Your task to perform on an android device: toggle notification dots Image 0: 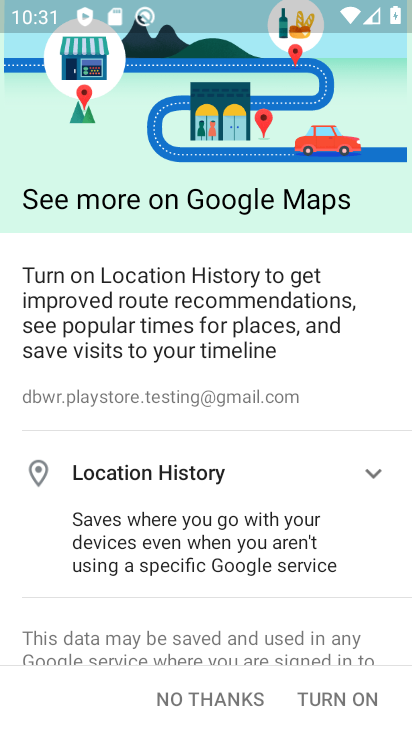
Step 0: press home button
Your task to perform on an android device: toggle notification dots Image 1: 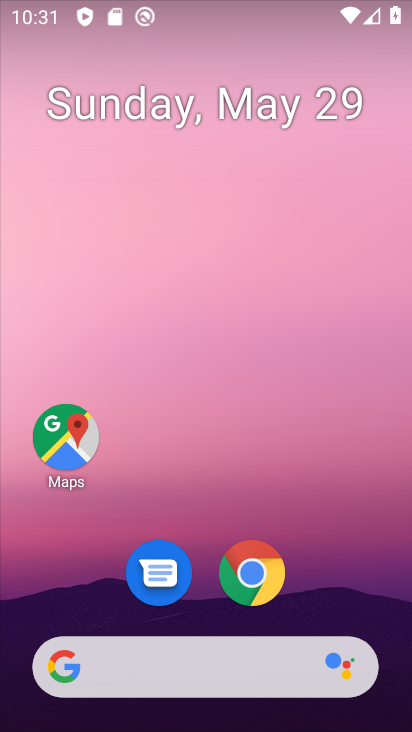
Step 1: drag from (319, 498) to (307, 193)
Your task to perform on an android device: toggle notification dots Image 2: 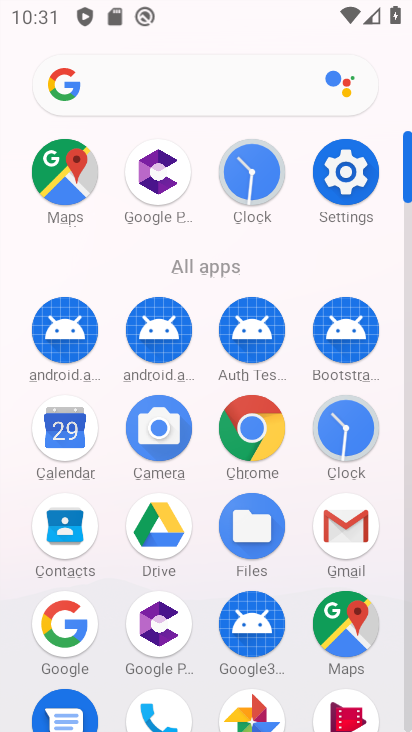
Step 2: click (363, 174)
Your task to perform on an android device: toggle notification dots Image 3: 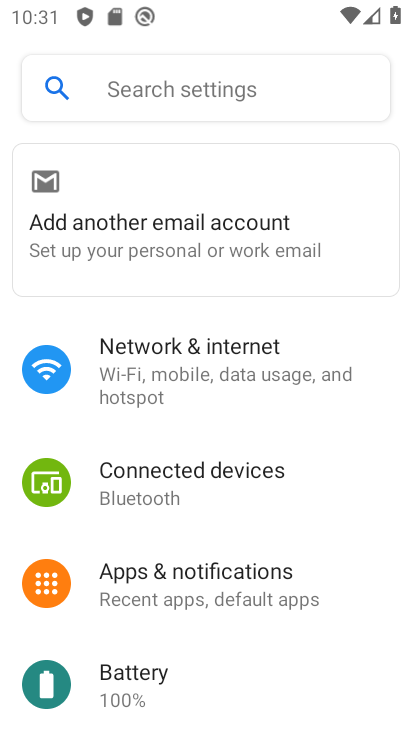
Step 3: click (251, 563)
Your task to perform on an android device: toggle notification dots Image 4: 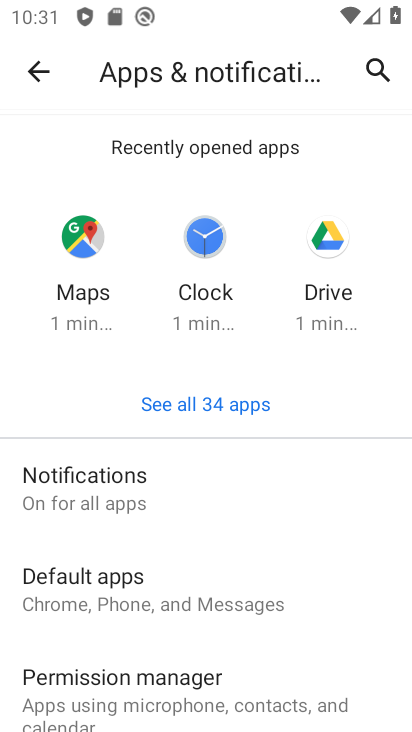
Step 4: drag from (321, 632) to (255, 256)
Your task to perform on an android device: toggle notification dots Image 5: 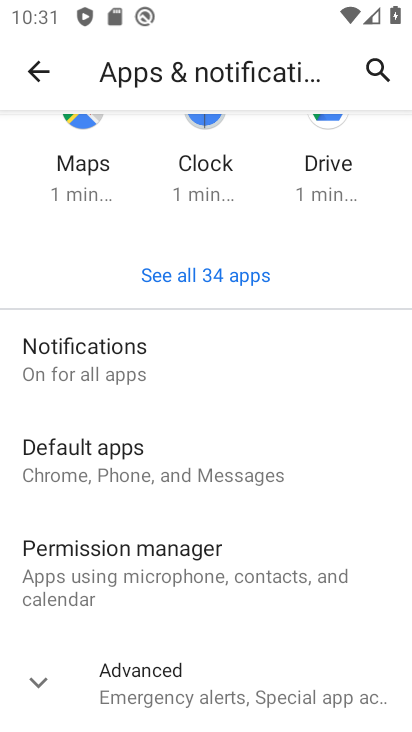
Step 5: click (40, 675)
Your task to perform on an android device: toggle notification dots Image 6: 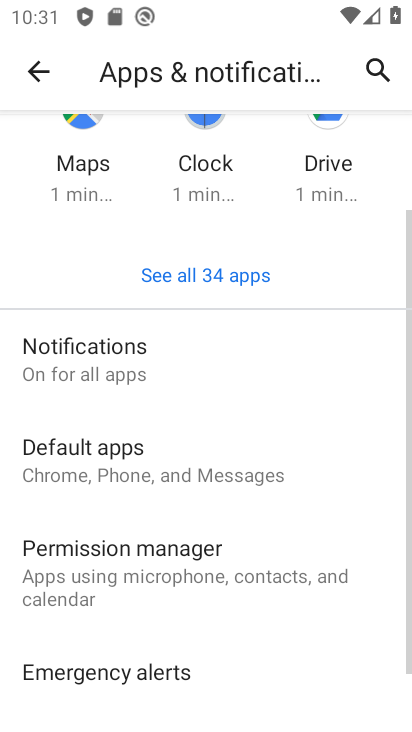
Step 6: drag from (300, 654) to (303, 165)
Your task to perform on an android device: toggle notification dots Image 7: 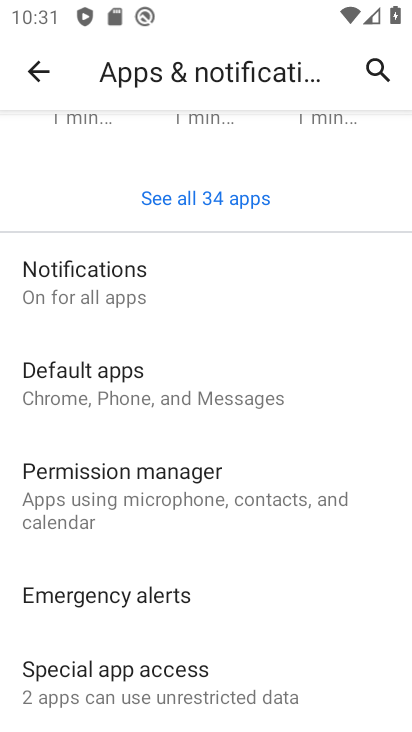
Step 7: drag from (272, 617) to (292, 152)
Your task to perform on an android device: toggle notification dots Image 8: 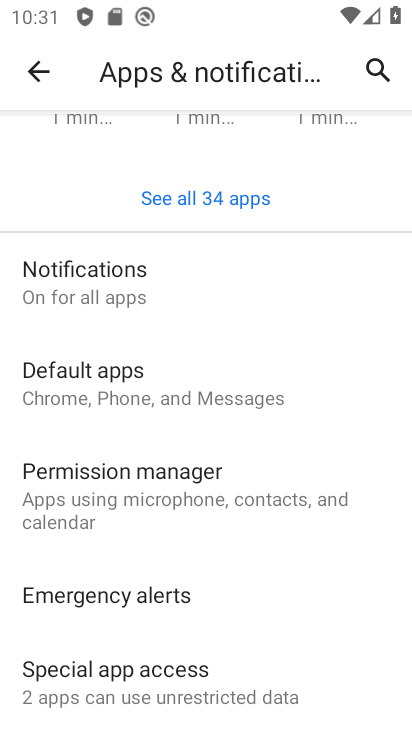
Step 8: drag from (276, 618) to (269, 162)
Your task to perform on an android device: toggle notification dots Image 9: 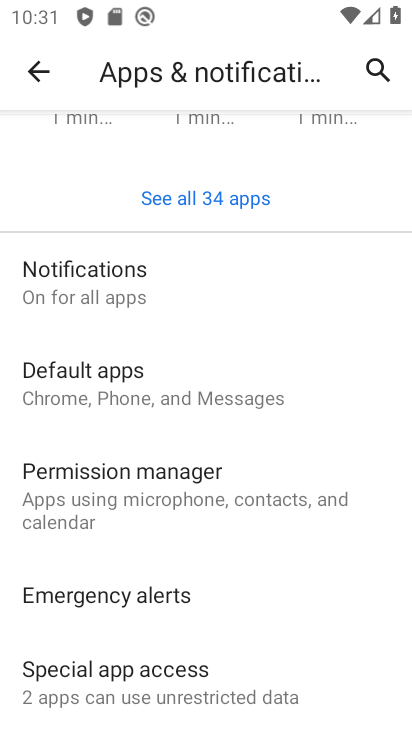
Step 9: drag from (255, 625) to (242, 296)
Your task to perform on an android device: toggle notification dots Image 10: 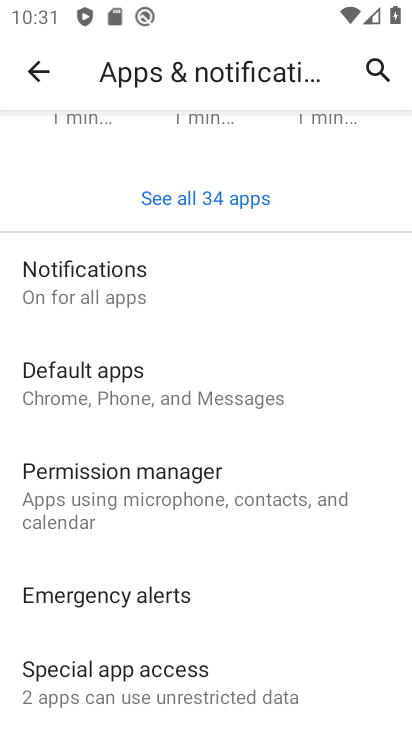
Step 10: drag from (279, 606) to (254, 296)
Your task to perform on an android device: toggle notification dots Image 11: 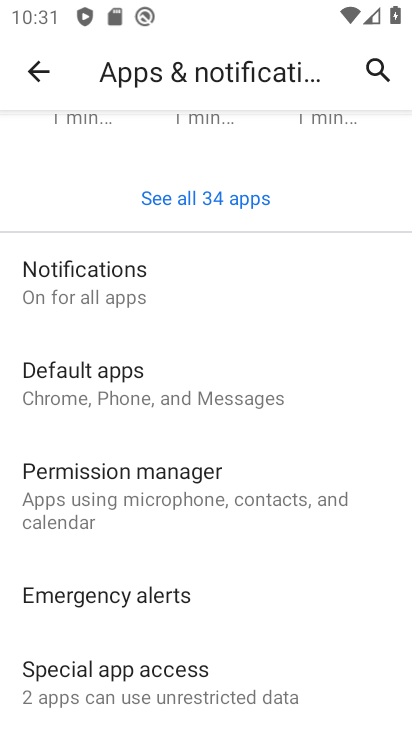
Step 11: drag from (269, 296) to (267, 197)
Your task to perform on an android device: toggle notification dots Image 12: 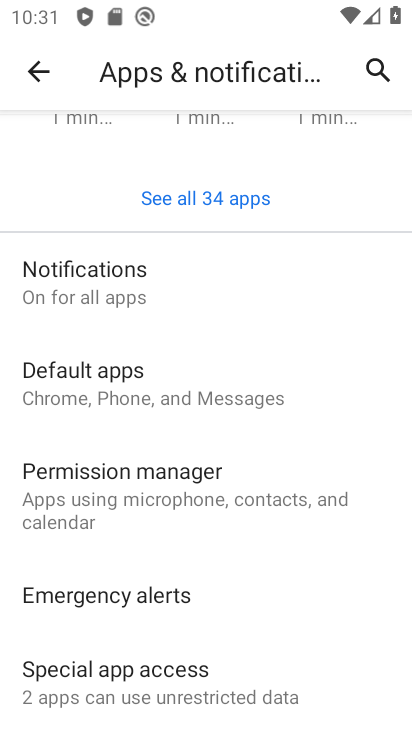
Step 12: click (66, 289)
Your task to perform on an android device: toggle notification dots Image 13: 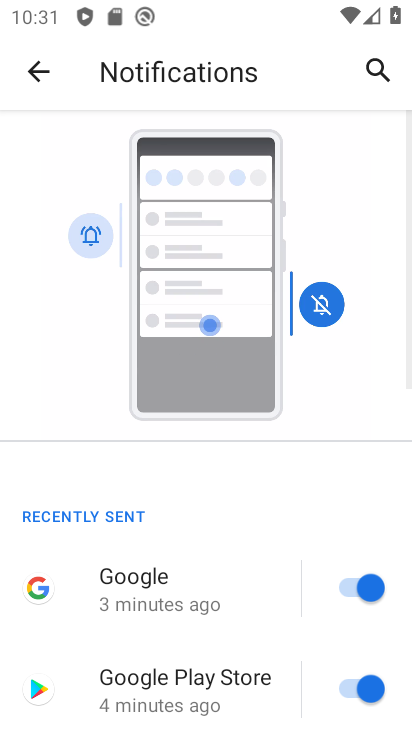
Step 13: drag from (263, 604) to (238, 175)
Your task to perform on an android device: toggle notification dots Image 14: 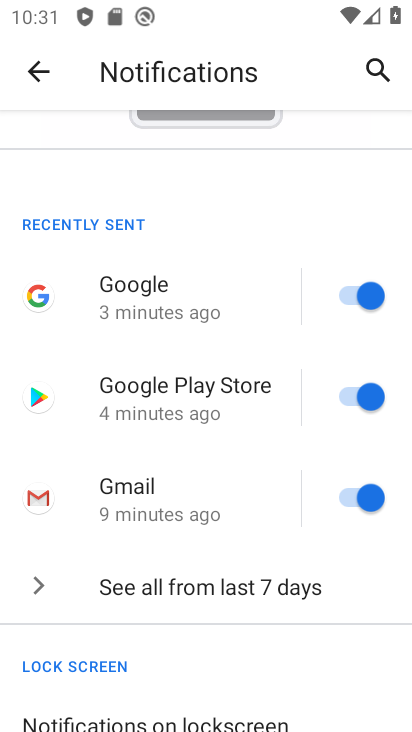
Step 14: drag from (178, 682) to (200, 312)
Your task to perform on an android device: toggle notification dots Image 15: 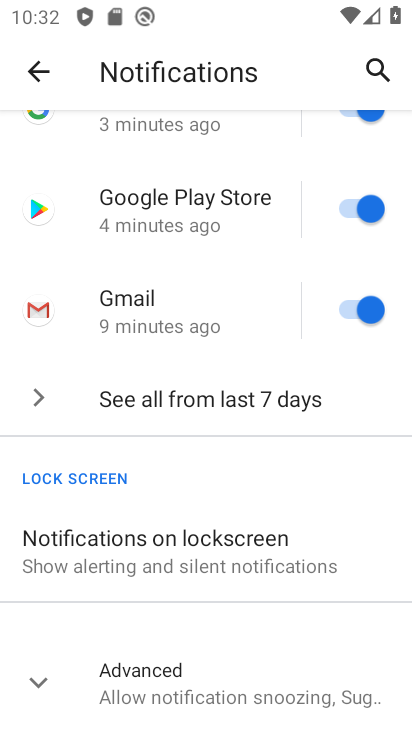
Step 15: click (45, 680)
Your task to perform on an android device: toggle notification dots Image 16: 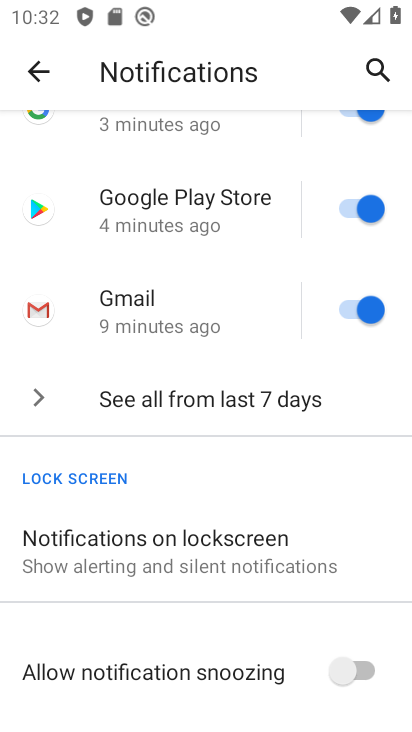
Step 16: drag from (230, 609) to (230, 325)
Your task to perform on an android device: toggle notification dots Image 17: 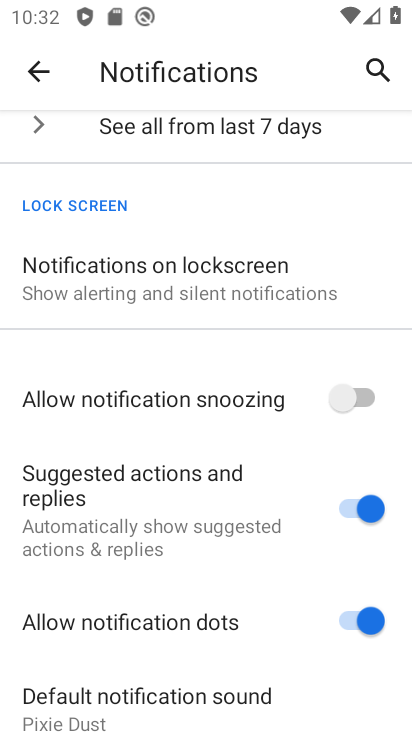
Step 17: click (337, 610)
Your task to perform on an android device: toggle notification dots Image 18: 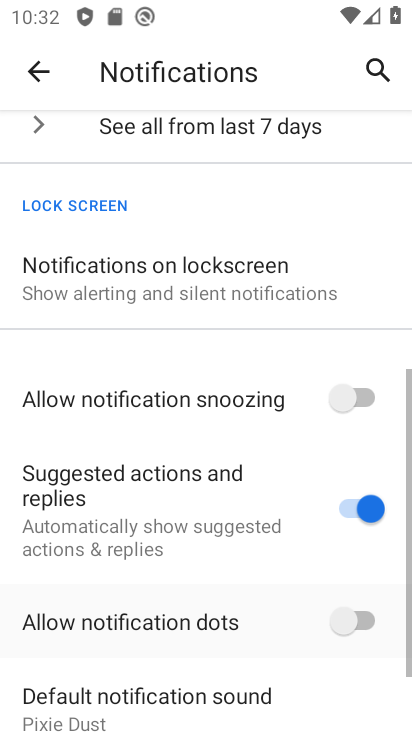
Step 18: click (345, 622)
Your task to perform on an android device: toggle notification dots Image 19: 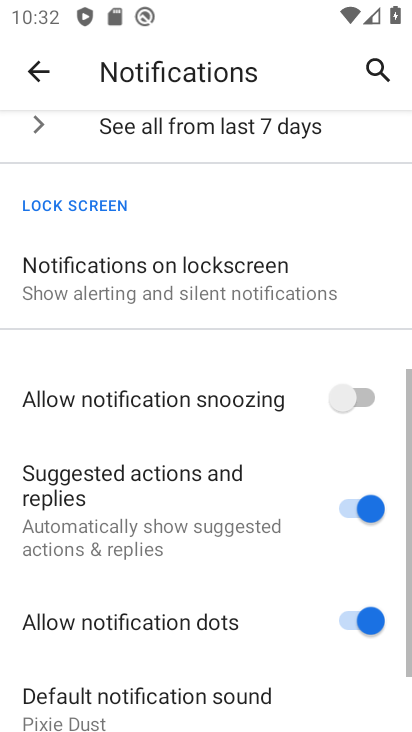
Step 19: click (347, 616)
Your task to perform on an android device: toggle notification dots Image 20: 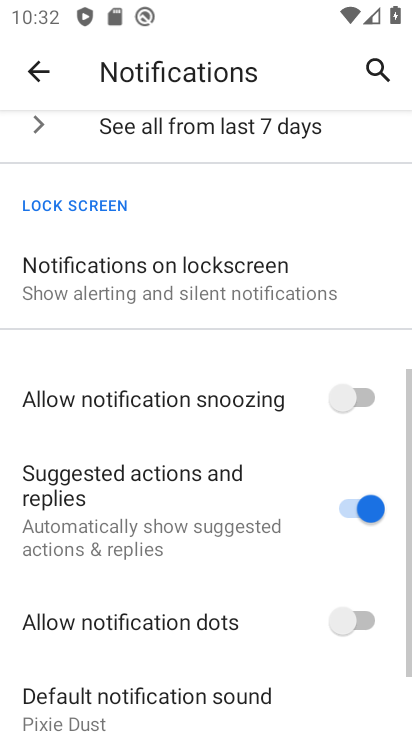
Step 20: task complete